Your task to perform on an android device: star an email in the gmail app Image 0: 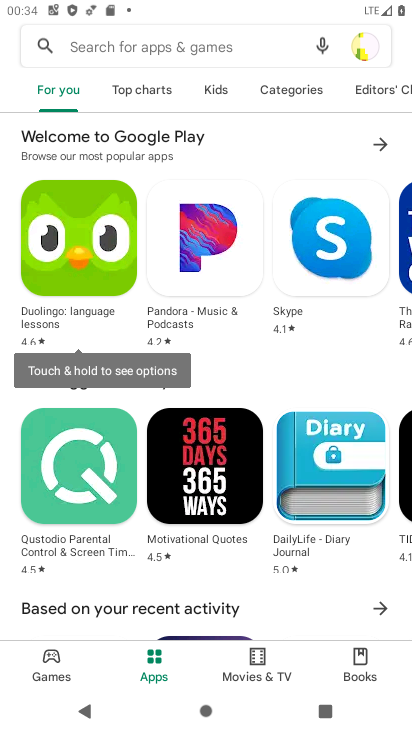
Step 0: press home button
Your task to perform on an android device: star an email in the gmail app Image 1: 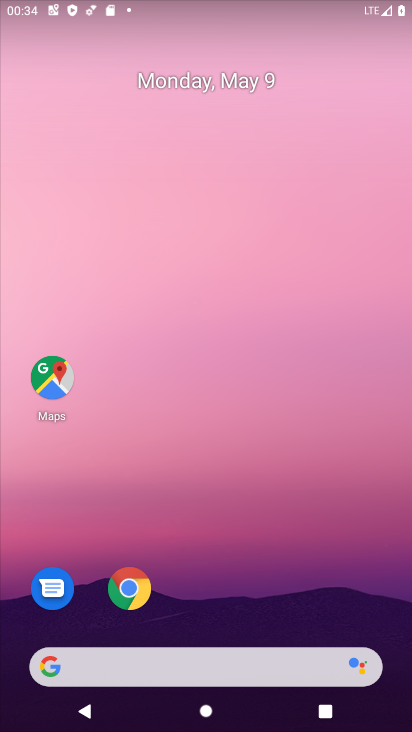
Step 1: drag from (256, 454) to (226, 5)
Your task to perform on an android device: star an email in the gmail app Image 2: 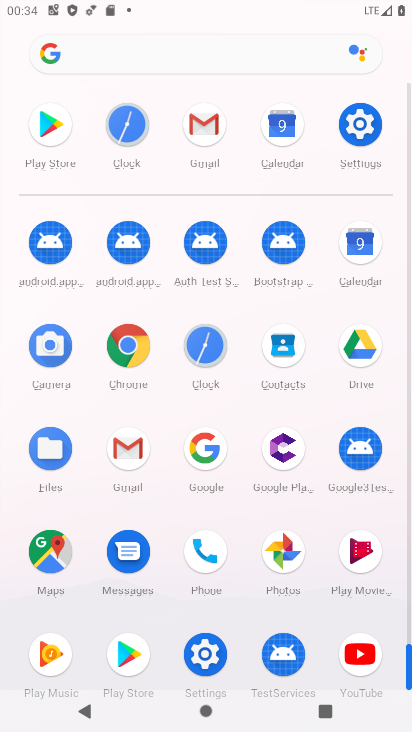
Step 2: click (202, 128)
Your task to perform on an android device: star an email in the gmail app Image 3: 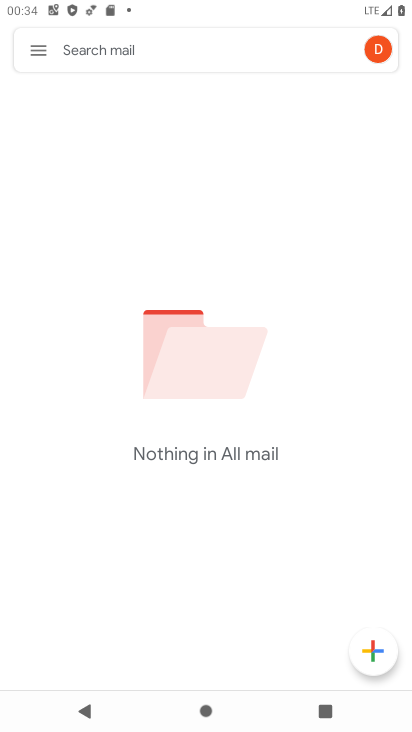
Step 3: click (33, 50)
Your task to perform on an android device: star an email in the gmail app Image 4: 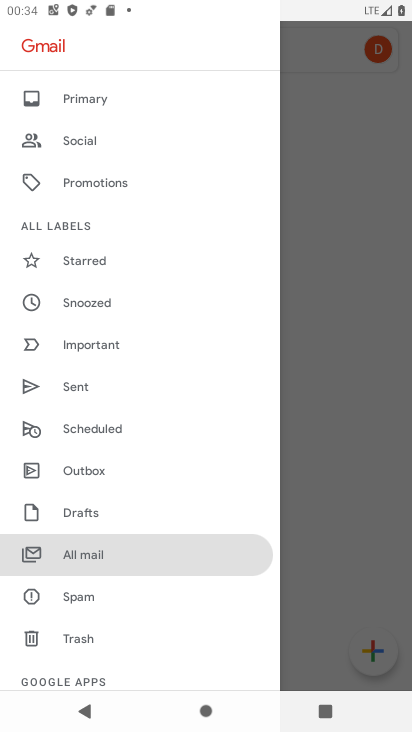
Step 4: click (83, 560)
Your task to perform on an android device: star an email in the gmail app Image 5: 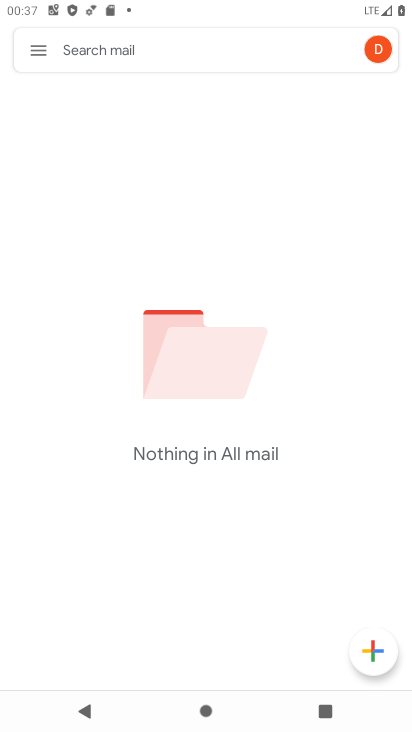
Step 5: task complete